Your task to perform on an android device: toggle improve location accuracy Image 0: 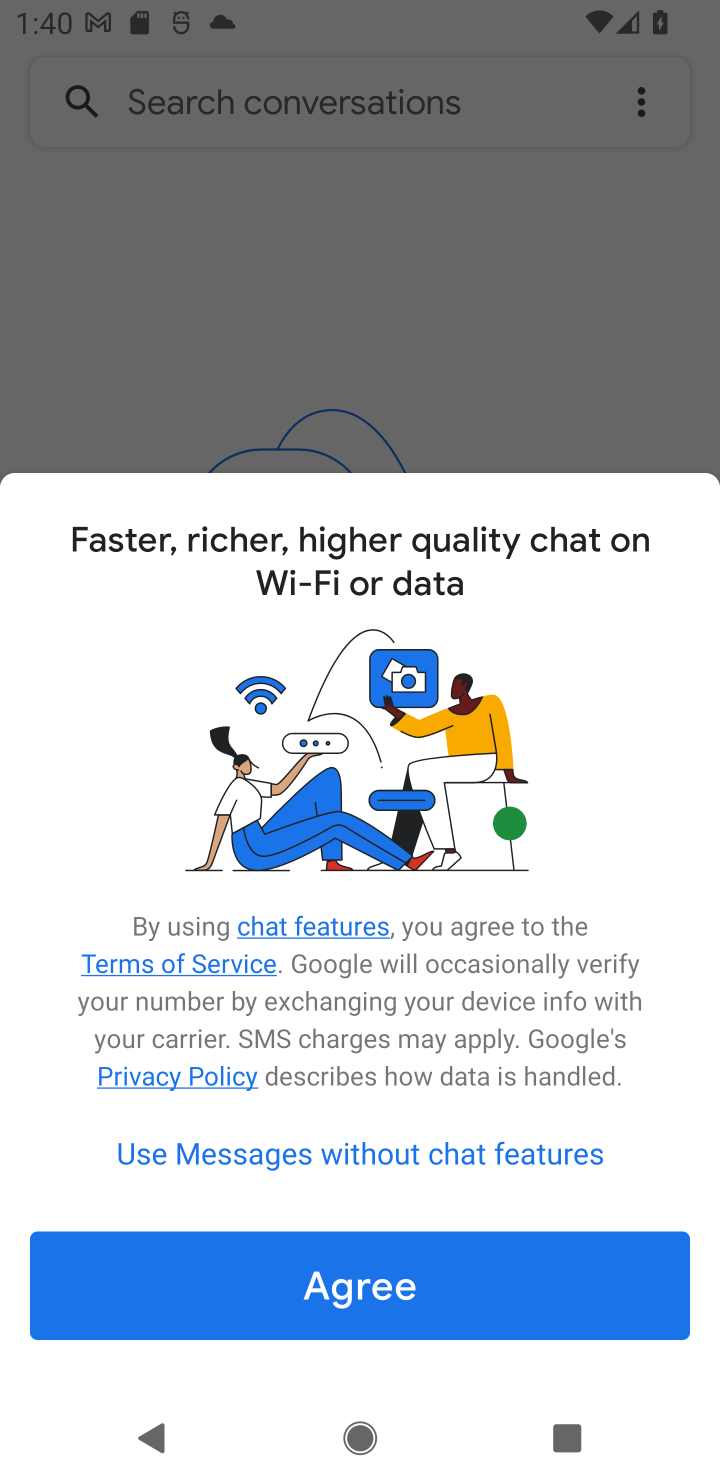
Step 0: press home button
Your task to perform on an android device: toggle improve location accuracy Image 1: 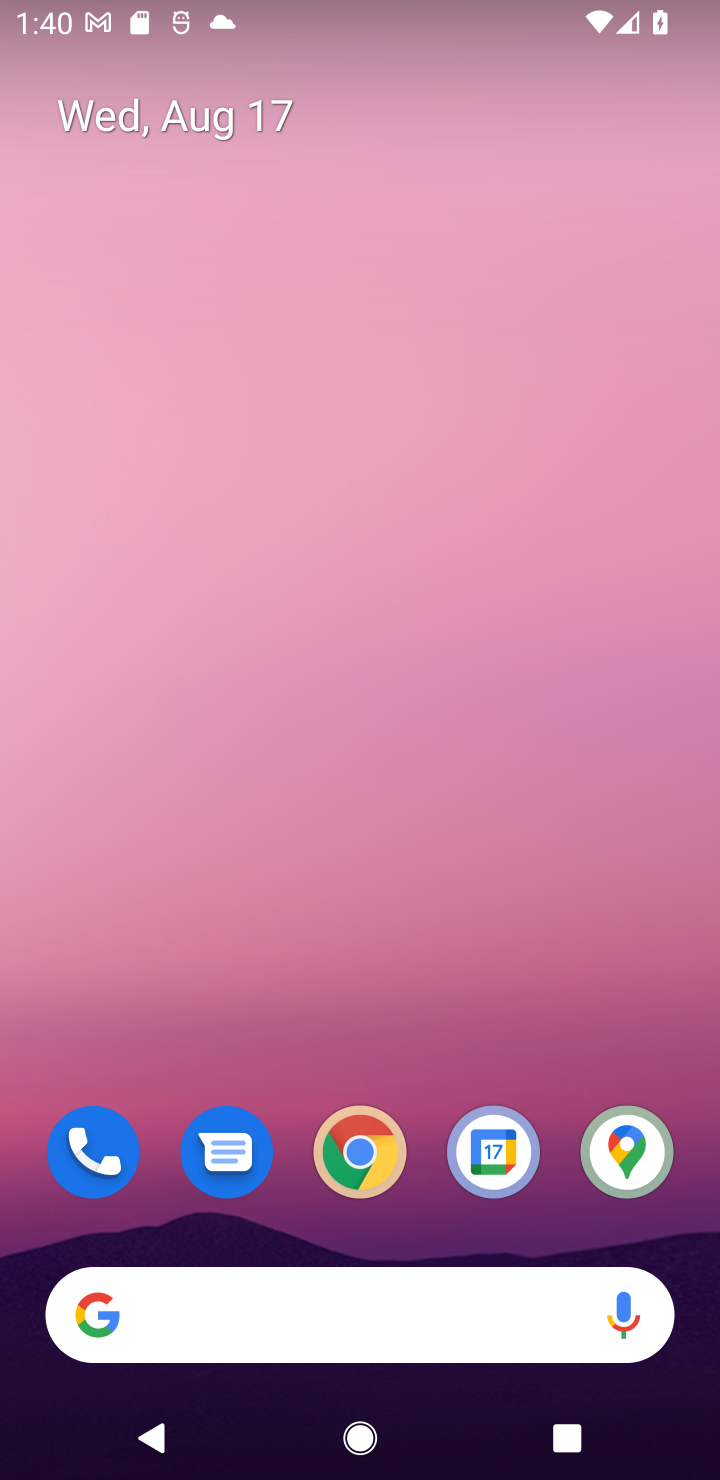
Step 1: drag from (676, 1186) to (395, 35)
Your task to perform on an android device: toggle improve location accuracy Image 2: 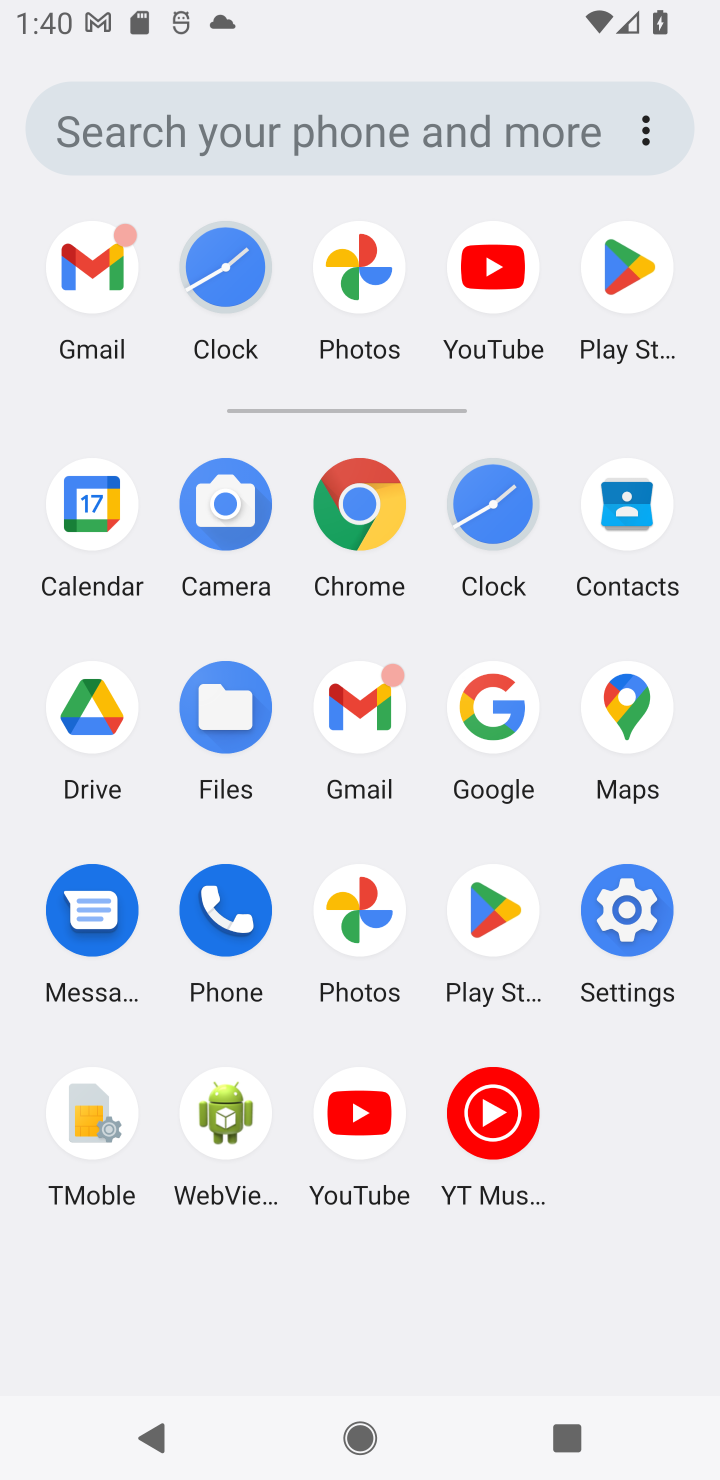
Step 2: click (627, 925)
Your task to perform on an android device: toggle improve location accuracy Image 3: 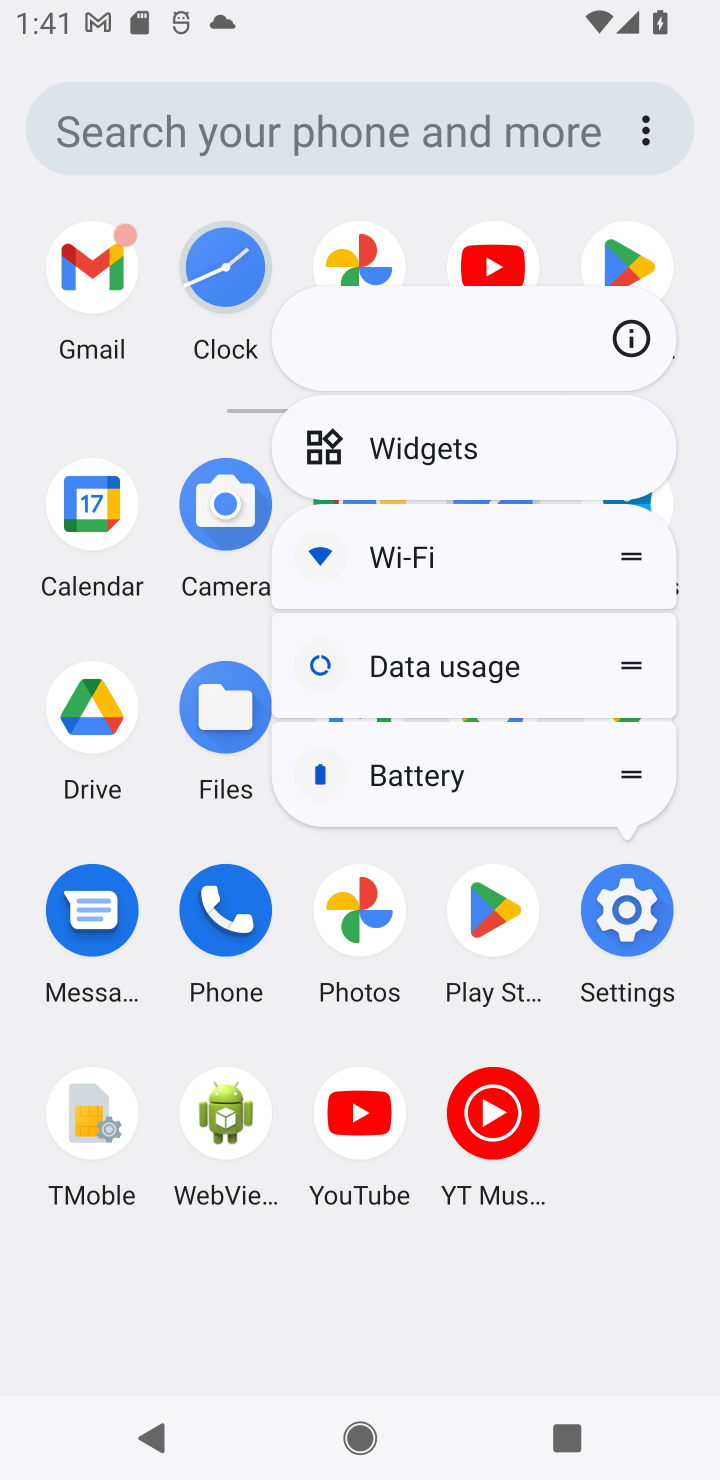
Step 3: click (617, 896)
Your task to perform on an android device: toggle improve location accuracy Image 4: 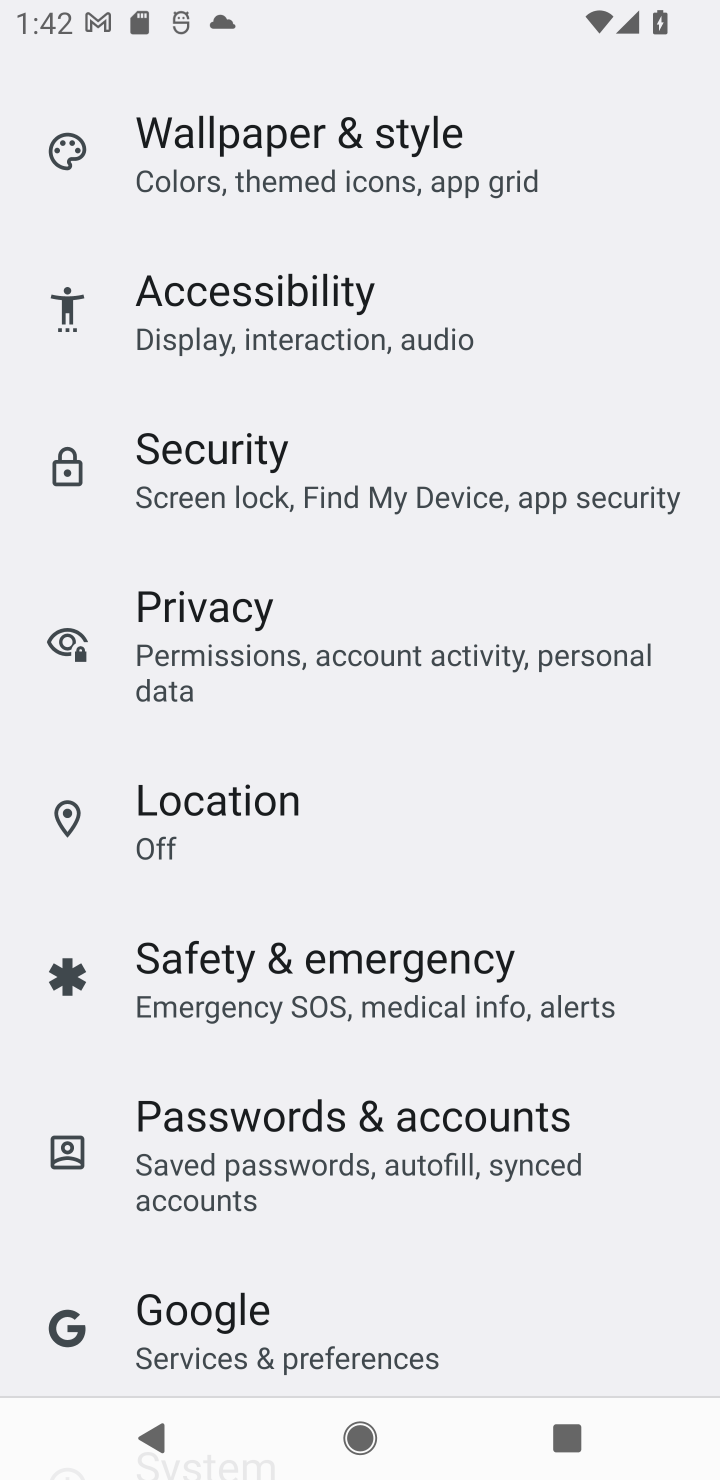
Step 4: click (229, 831)
Your task to perform on an android device: toggle improve location accuracy Image 5: 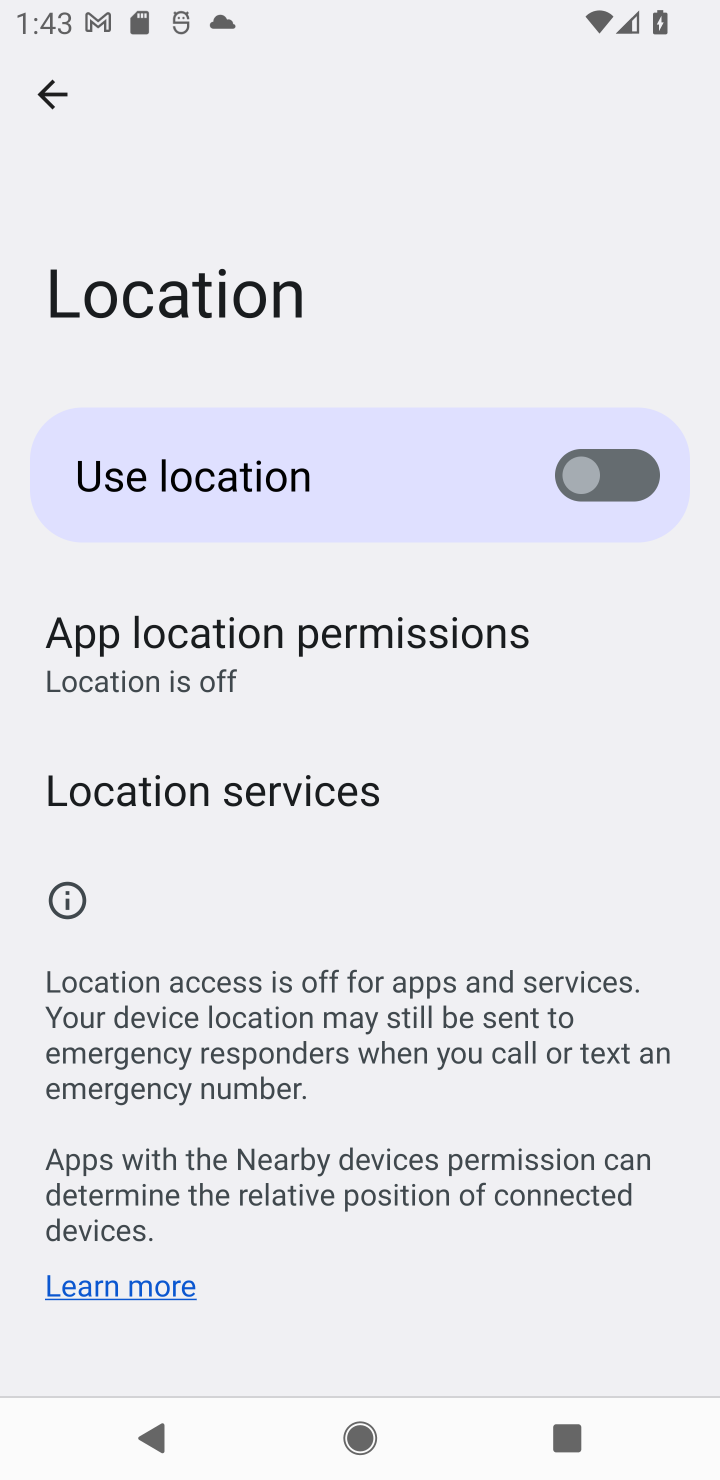
Step 5: click (341, 801)
Your task to perform on an android device: toggle improve location accuracy Image 6: 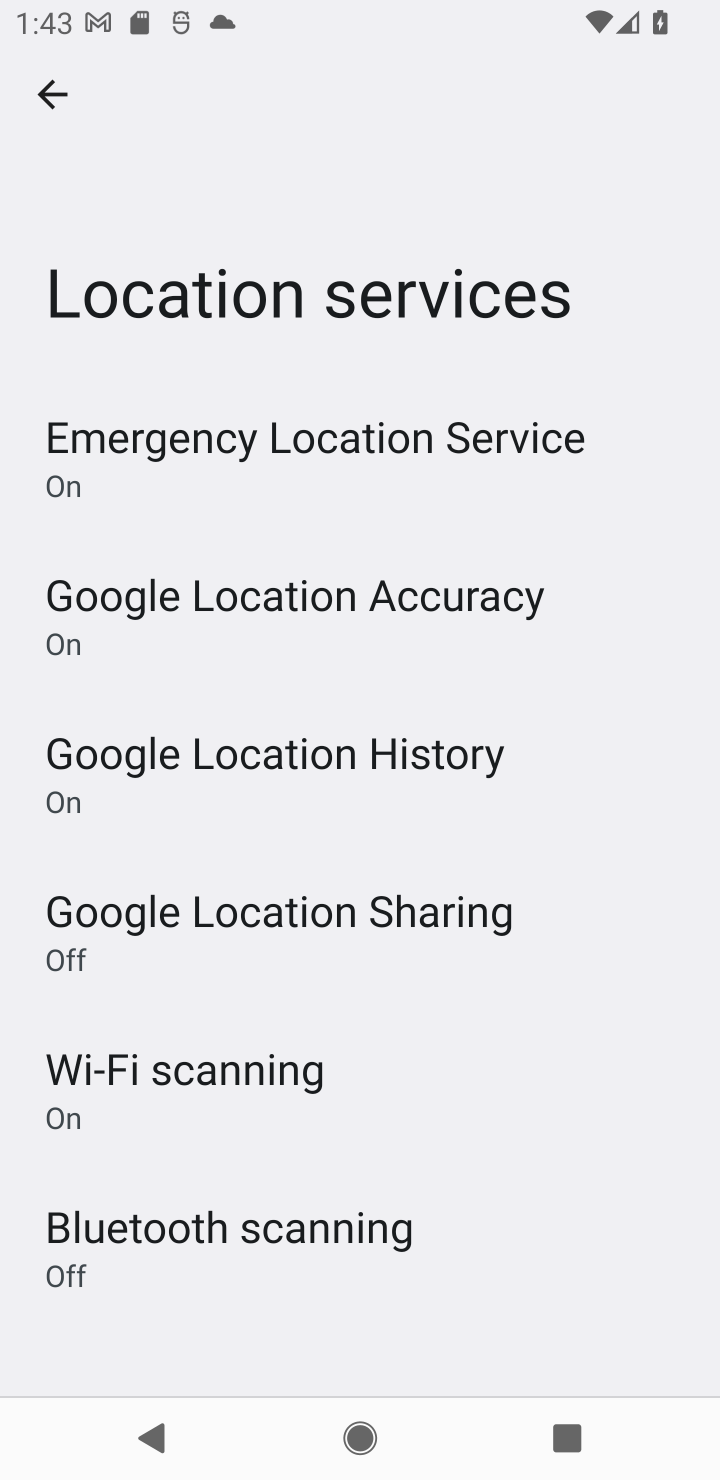
Step 6: click (388, 603)
Your task to perform on an android device: toggle improve location accuracy Image 7: 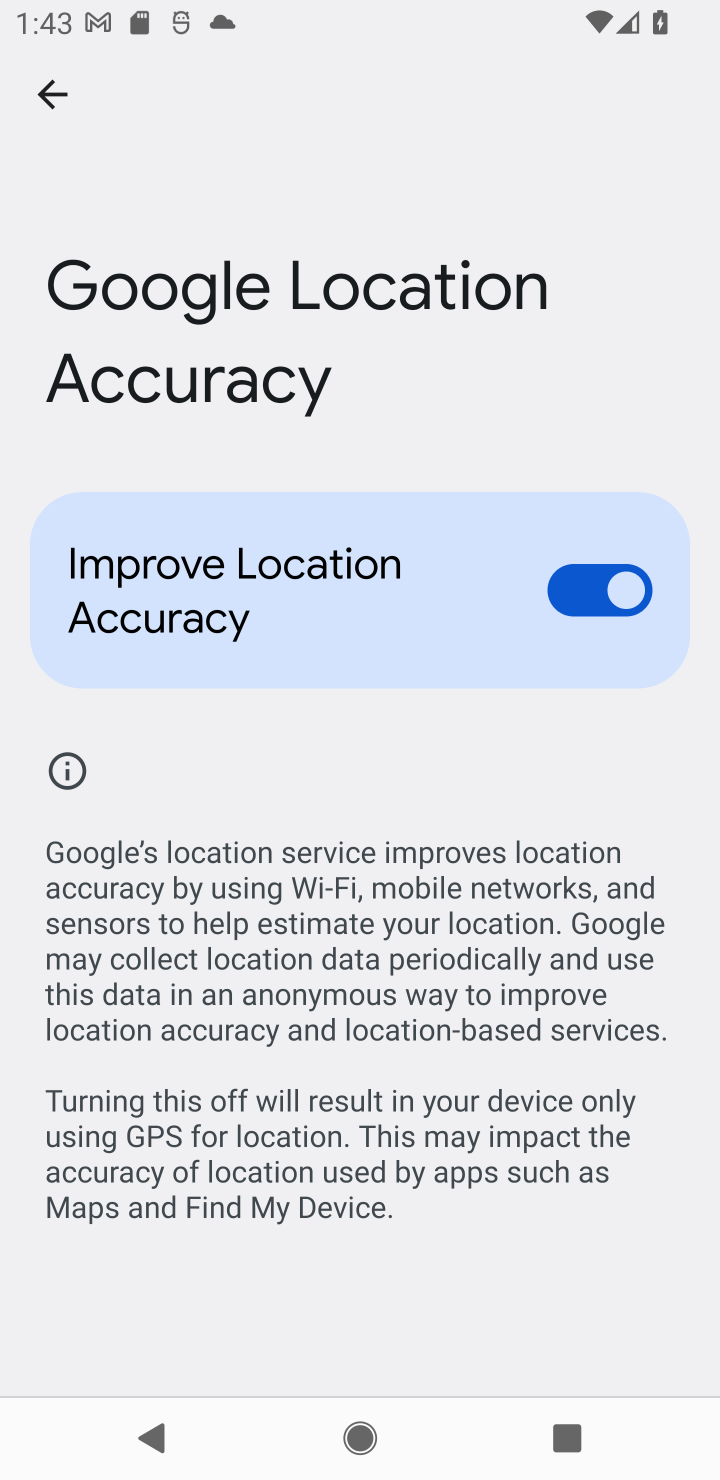
Step 7: click (454, 619)
Your task to perform on an android device: toggle improve location accuracy Image 8: 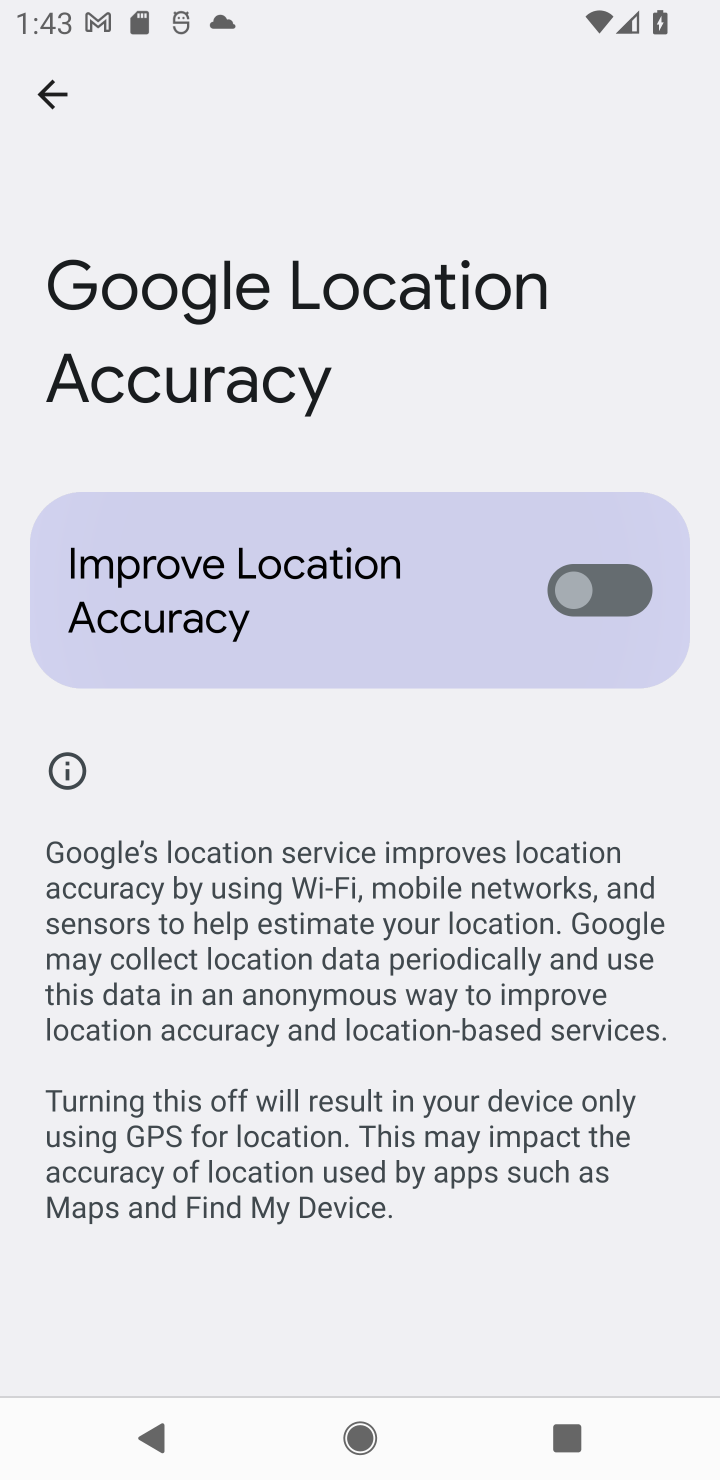
Step 8: task complete